Your task to perform on an android device: toggle data saver in the chrome app Image 0: 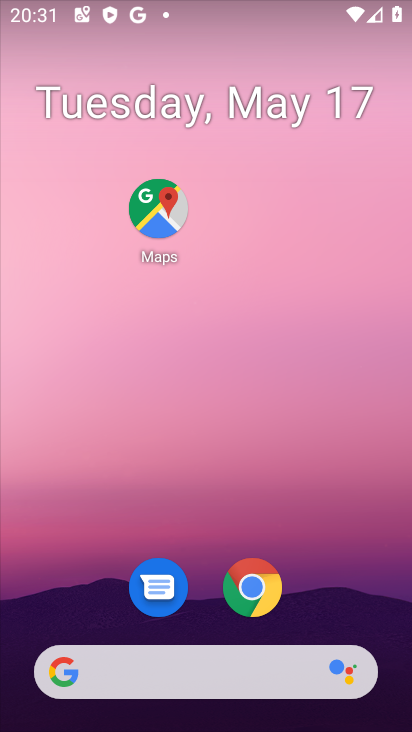
Step 0: press home button
Your task to perform on an android device: toggle data saver in the chrome app Image 1: 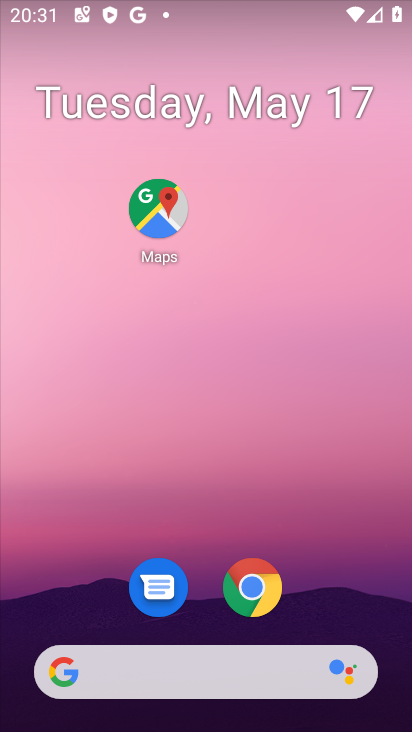
Step 1: click (259, 584)
Your task to perform on an android device: toggle data saver in the chrome app Image 2: 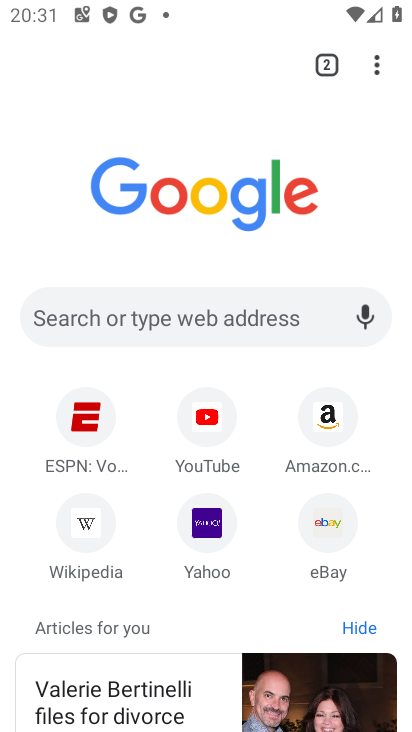
Step 2: click (371, 58)
Your task to perform on an android device: toggle data saver in the chrome app Image 3: 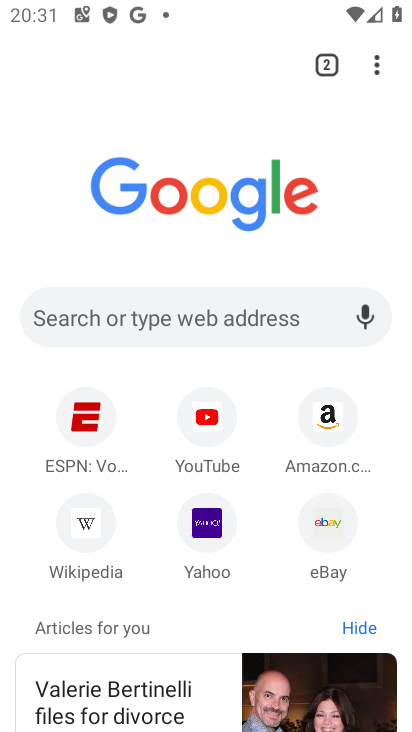
Step 3: click (369, 80)
Your task to perform on an android device: toggle data saver in the chrome app Image 4: 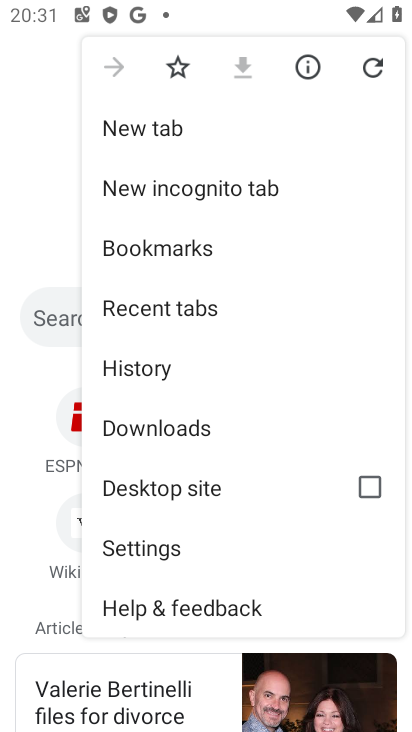
Step 4: click (129, 544)
Your task to perform on an android device: toggle data saver in the chrome app Image 5: 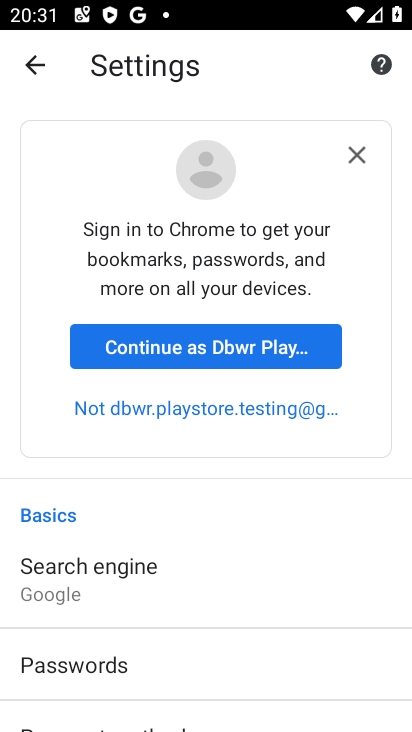
Step 5: click (357, 161)
Your task to perform on an android device: toggle data saver in the chrome app Image 6: 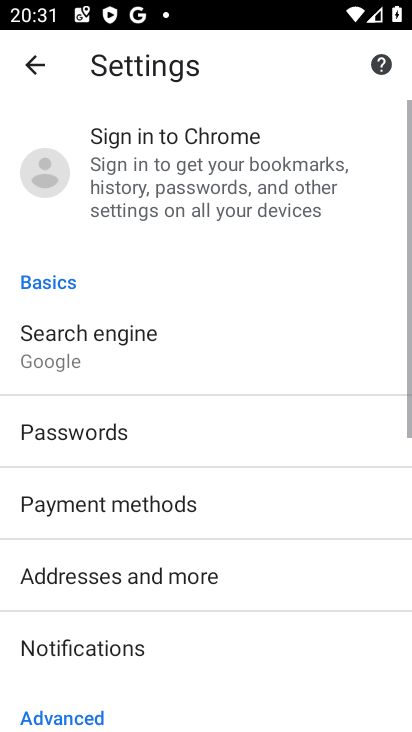
Step 6: drag from (31, 551) to (265, 106)
Your task to perform on an android device: toggle data saver in the chrome app Image 7: 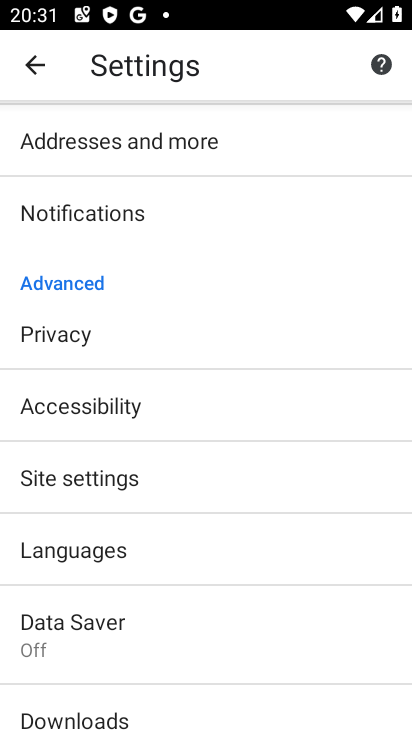
Step 7: click (66, 631)
Your task to perform on an android device: toggle data saver in the chrome app Image 8: 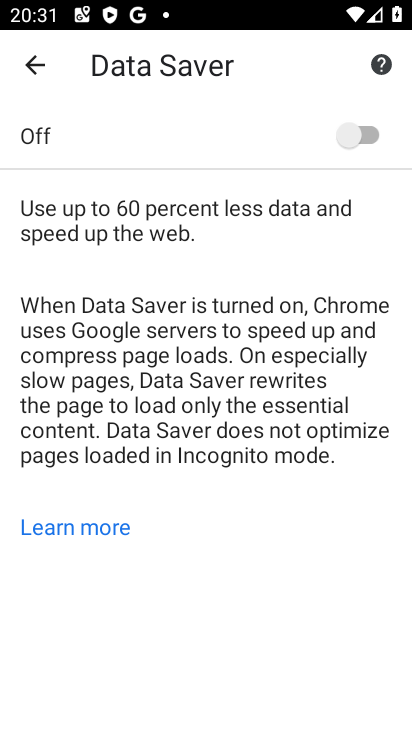
Step 8: click (346, 139)
Your task to perform on an android device: toggle data saver in the chrome app Image 9: 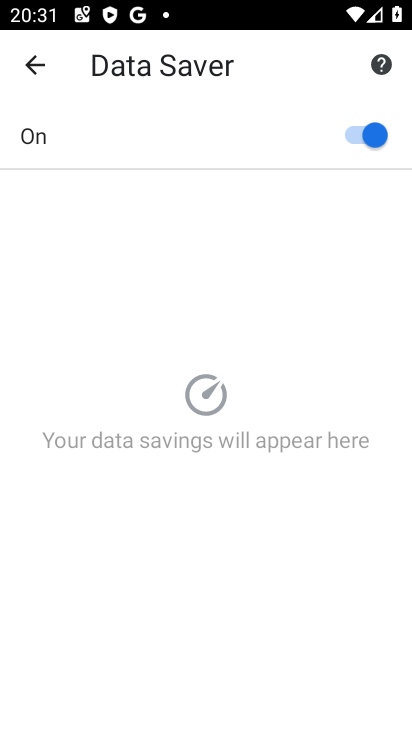
Step 9: task complete